Your task to perform on an android device: toggle translation in the chrome app Image 0: 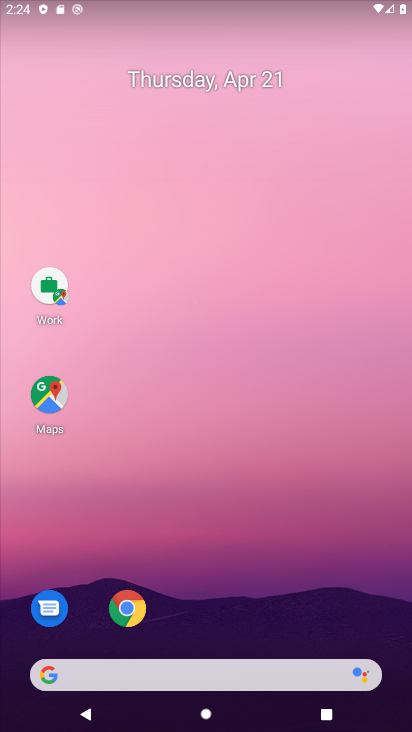
Step 0: click (124, 619)
Your task to perform on an android device: toggle translation in the chrome app Image 1: 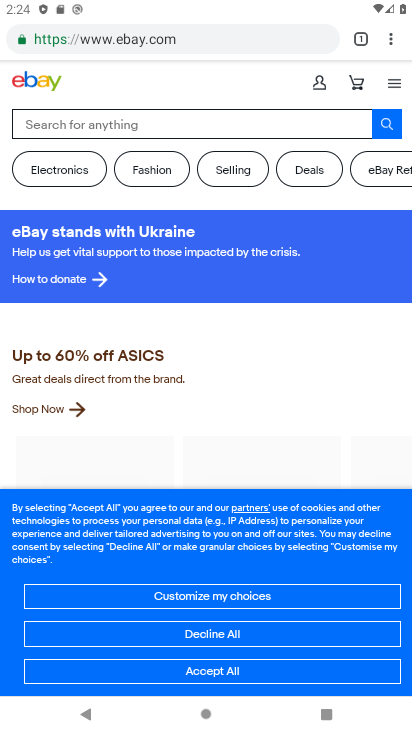
Step 1: press back button
Your task to perform on an android device: toggle translation in the chrome app Image 2: 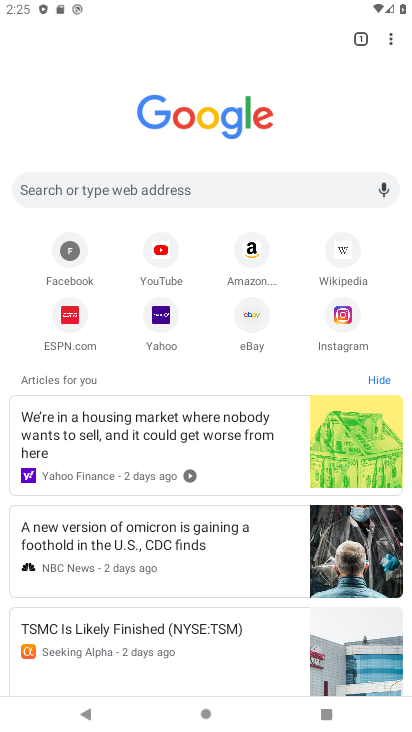
Step 2: click (253, 250)
Your task to perform on an android device: toggle translation in the chrome app Image 3: 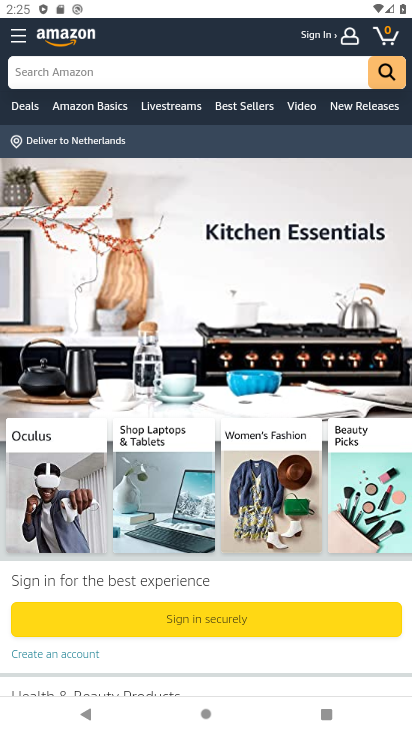
Step 3: task complete